Your task to perform on an android device: Go to wifi settings Image 0: 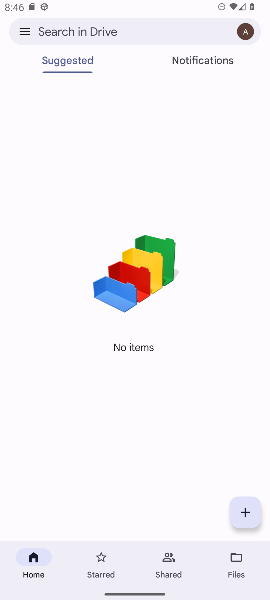
Step 0: press home button
Your task to perform on an android device: Go to wifi settings Image 1: 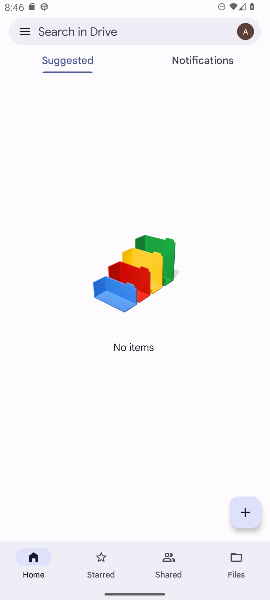
Step 1: press home button
Your task to perform on an android device: Go to wifi settings Image 2: 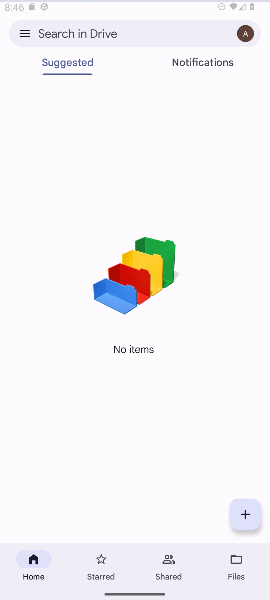
Step 2: press home button
Your task to perform on an android device: Go to wifi settings Image 3: 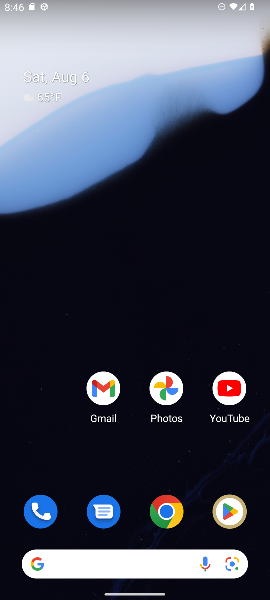
Step 3: drag from (140, 494) to (191, 62)
Your task to perform on an android device: Go to wifi settings Image 4: 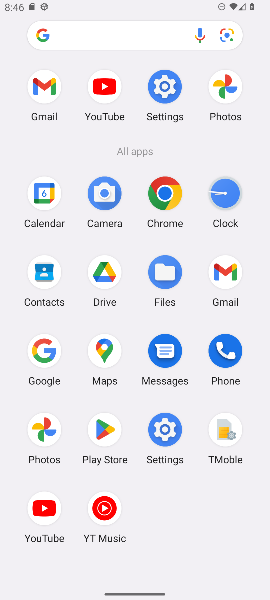
Step 4: drag from (232, 4) to (241, 384)
Your task to perform on an android device: Go to wifi settings Image 5: 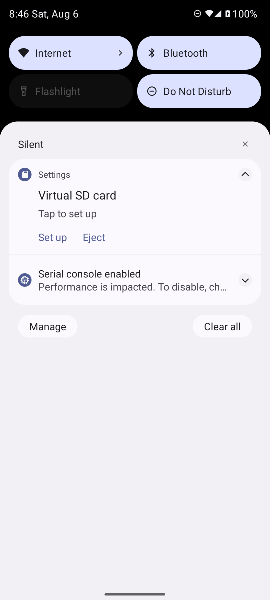
Step 5: click (71, 56)
Your task to perform on an android device: Go to wifi settings Image 6: 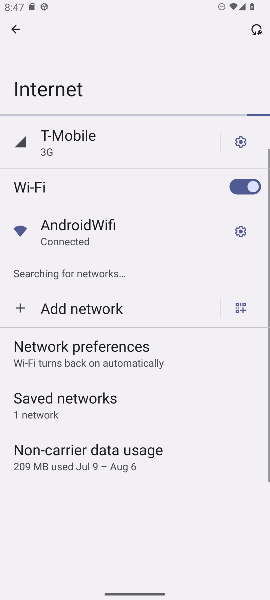
Step 6: click (239, 235)
Your task to perform on an android device: Go to wifi settings Image 7: 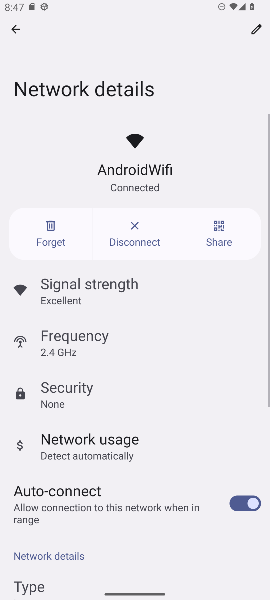
Step 7: task complete